Your task to perform on an android device: Turn on the flashlight Image 0: 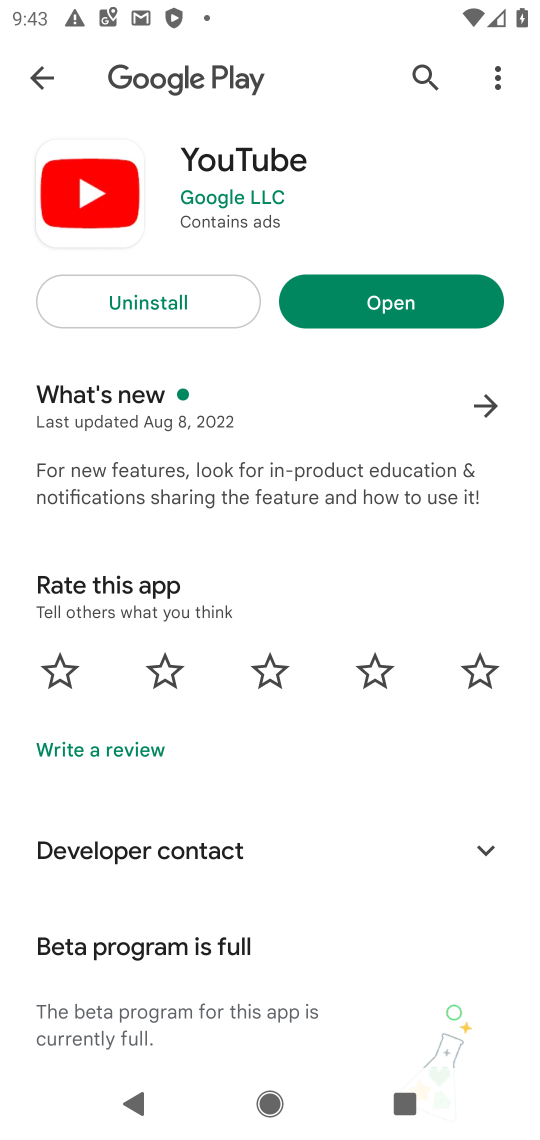
Step 0: press home button
Your task to perform on an android device: Turn on the flashlight Image 1: 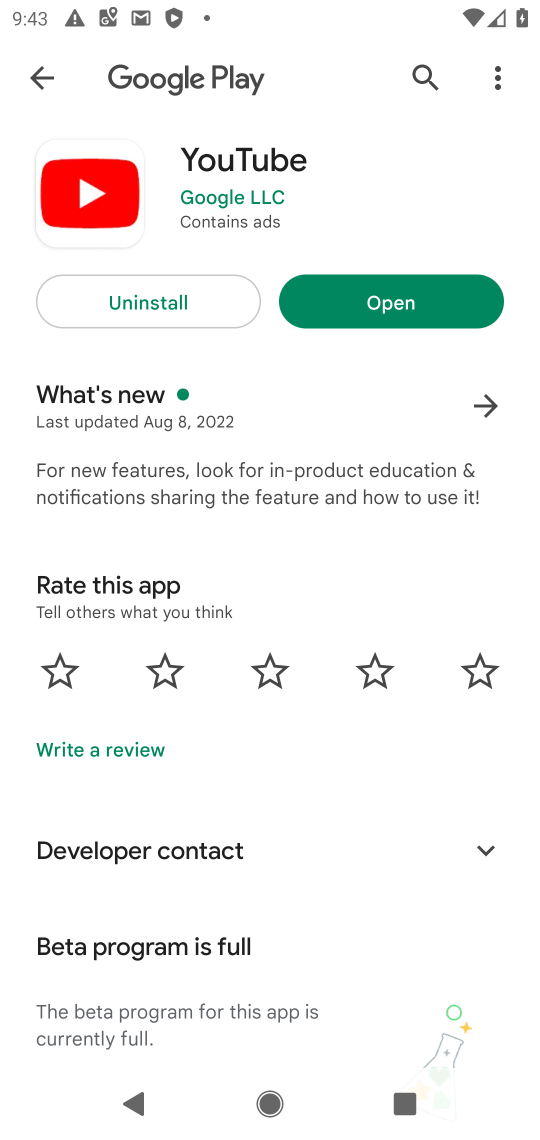
Step 1: press home button
Your task to perform on an android device: Turn on the flashlight Image 2: 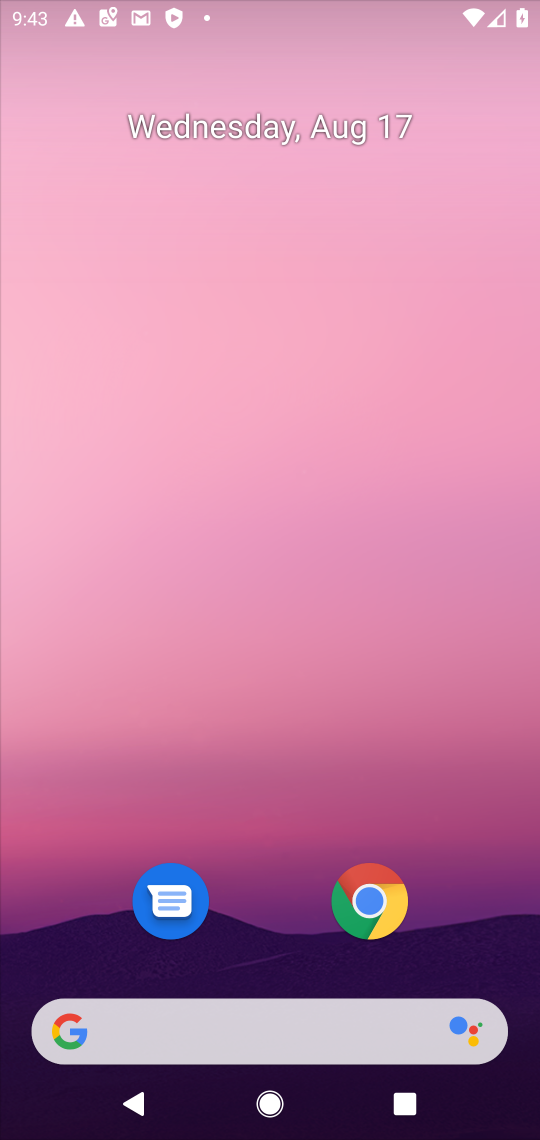
Step 2: press home button
Your task to perform on an android device: Turn on the flashlight Image 3: 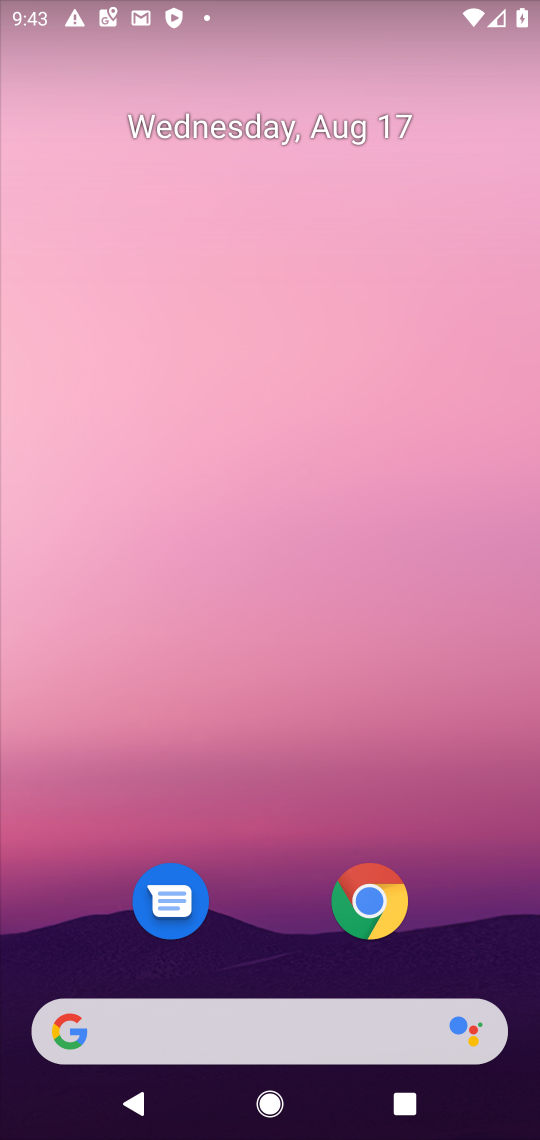
Step 3: drag from (264, 933) to (379, 155)
Your task to perform on an android device: Turn on the flashlight Image 4: 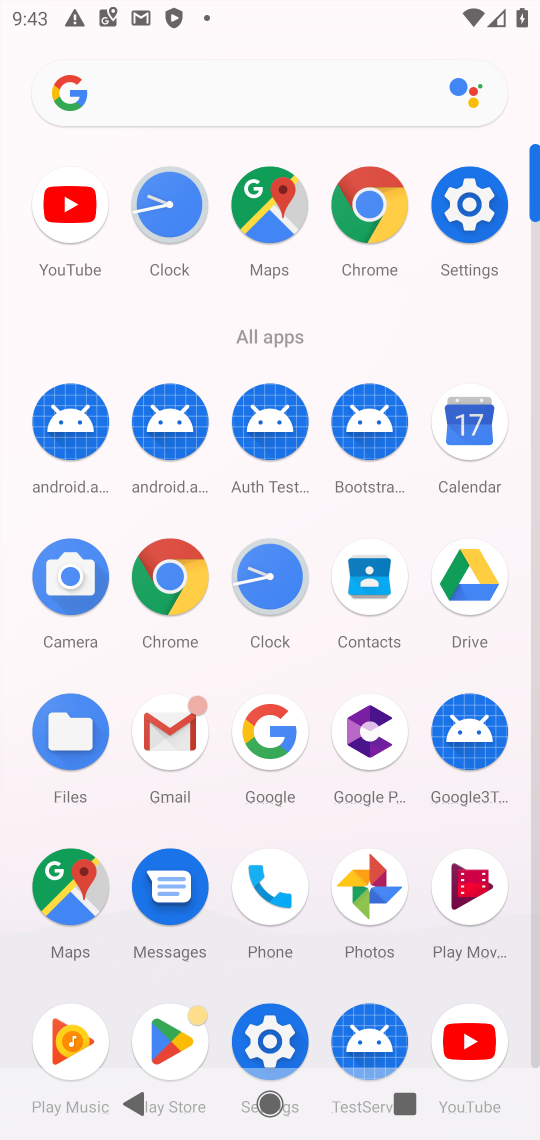
Step 4: click (279, 1023)
Your task to perform on an android device: Turn on the flashlight Image 5: 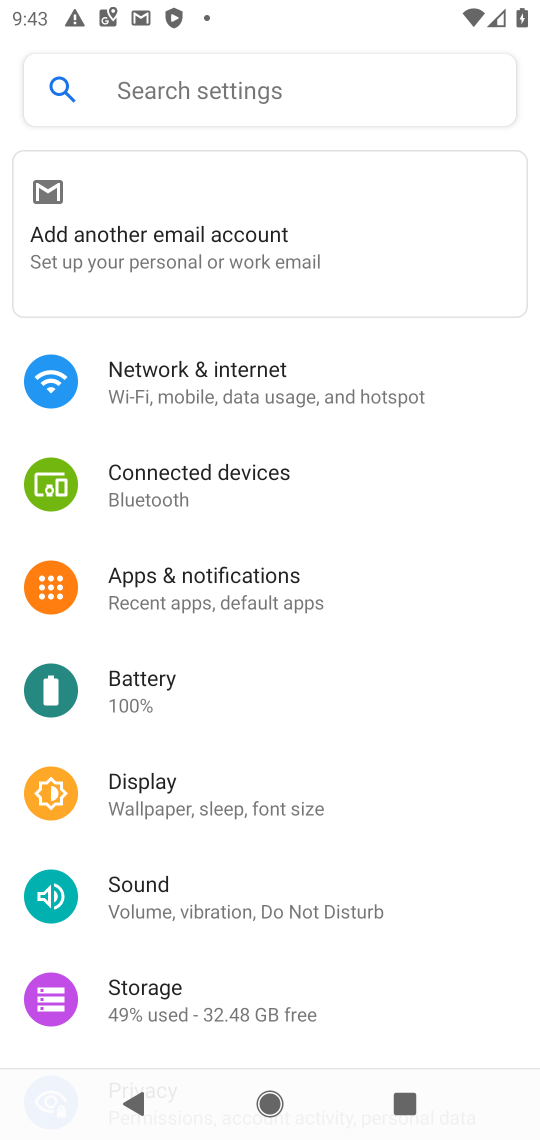
Step 5: click (173, 786)
Your task to perform on an android device: Turn on the flashlight Image 6: 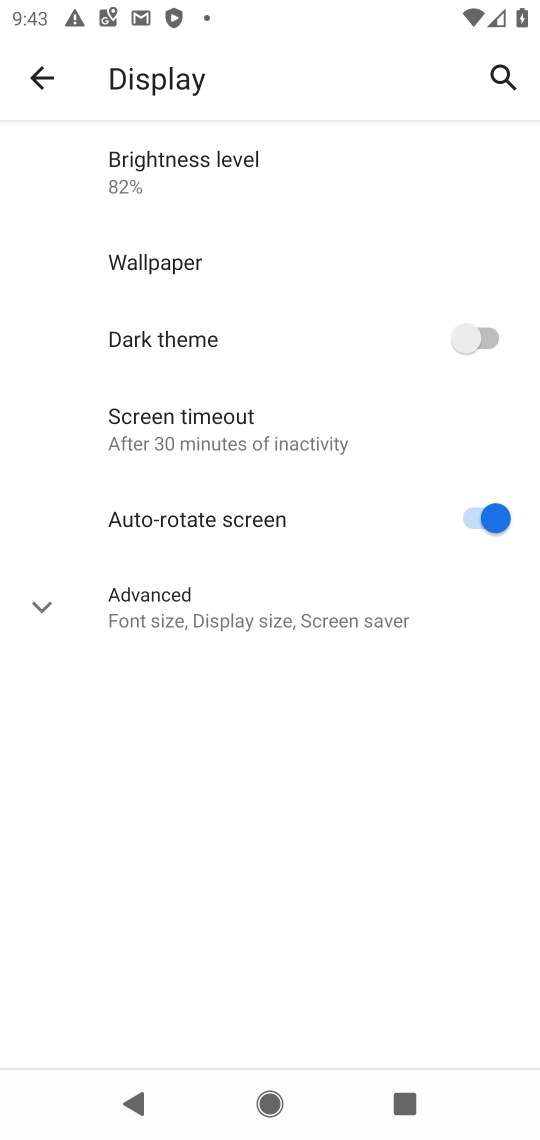
Step 6: task complete